Your task to perform on an android device: Do I have any events tomorrow? Image 0: 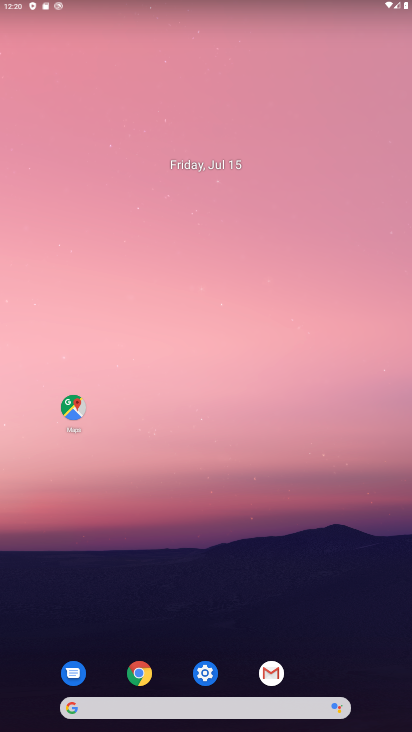
Step 0: drag from (237, 718) to (260, 275)
Your task to perform on an android device: Do I have any events tomorrow? Image 1: 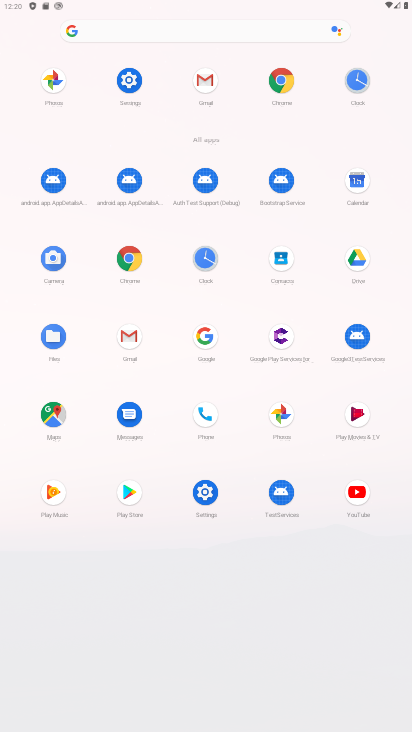
Step 1: click (356, 197)
Your task to perform on an android device: Do I have any events tomorrow? Image 2: 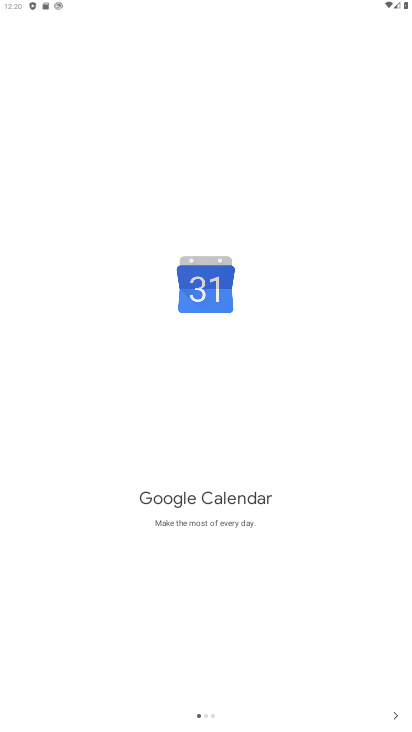
Step 2: click (399, 708)
Your task to perform on an android device: Do I have any events tomorrow? Image 3: 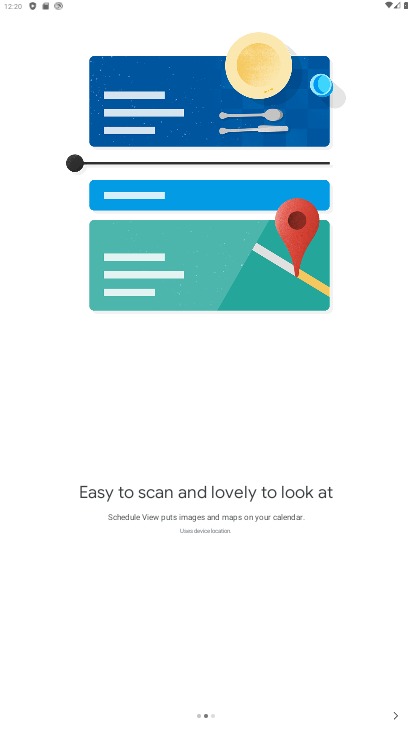
Step 3: click (399, 708)
Your task to perform on an android device: Do I have any events tomorrow? Image 4: 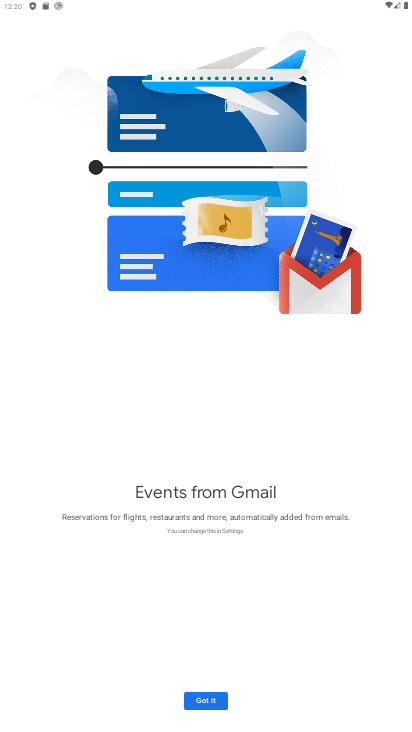
Step 4: click (212, 703)
Your task to perform on an android device: Do I have any events tomorrow? Image 5: 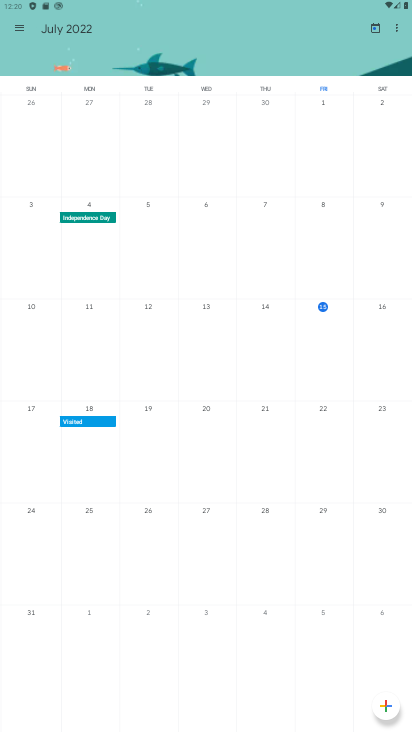
Step 5: click (375, 319)
Your task to perform on an android device: Do I have any events tomorrow? Image 6: 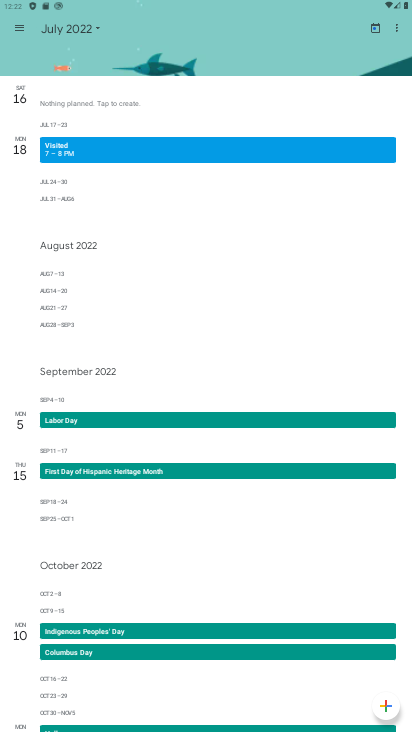
Step 6: task complete